Your task to perform on an android device: snooze an email in the gmail app Image 0: 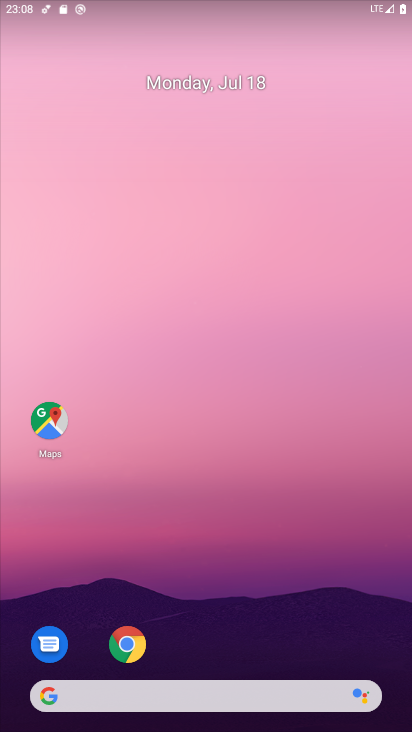
Step 0: drag from (330, 621) to (321, 169)
Your task to perform on an android device: snooze an email in the gmail app Image 1: 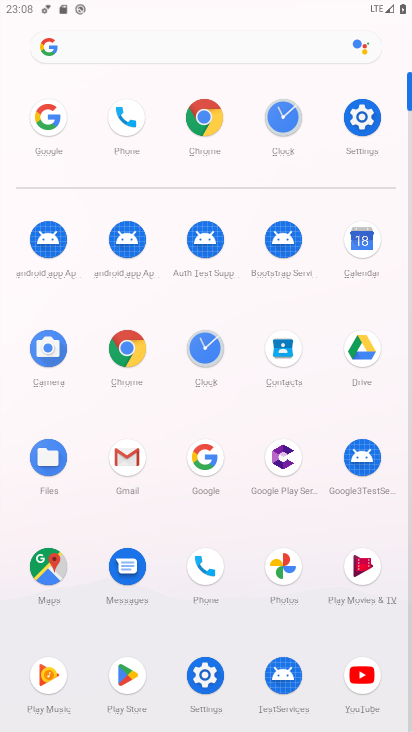
Step 1: click (124, 461)
Your task to perform on an android device: snooze an email in the gmail app Image 2: 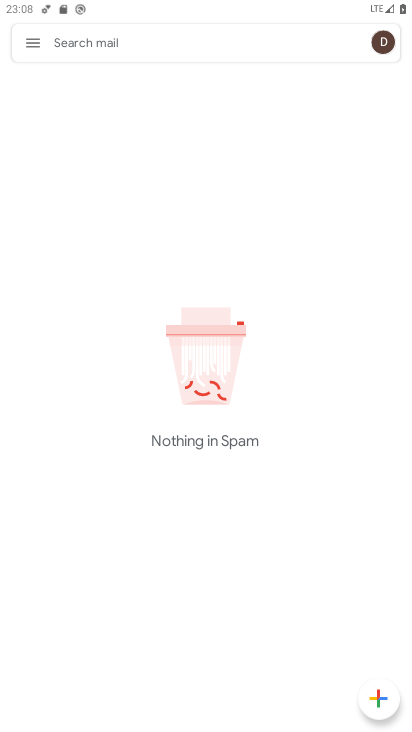
Step 2: click (41, 46)
Your task to perform on an android device: snooze an email in the gmail app Image 3: 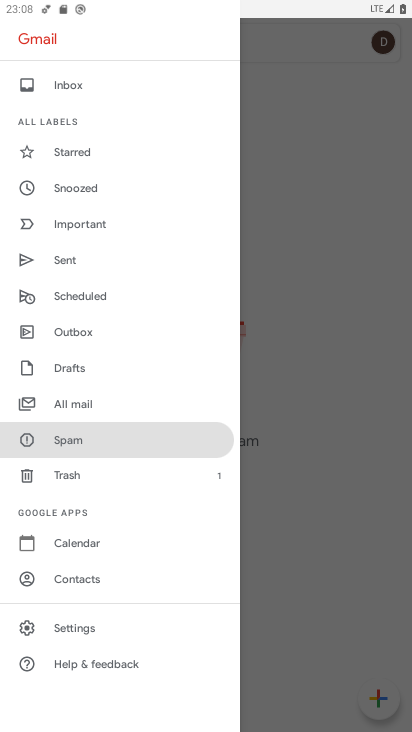
Step 3: drag from (182, 199) to (183, 321)
Your task to perform on an android device: snooze an email in the gmail app Image 4: 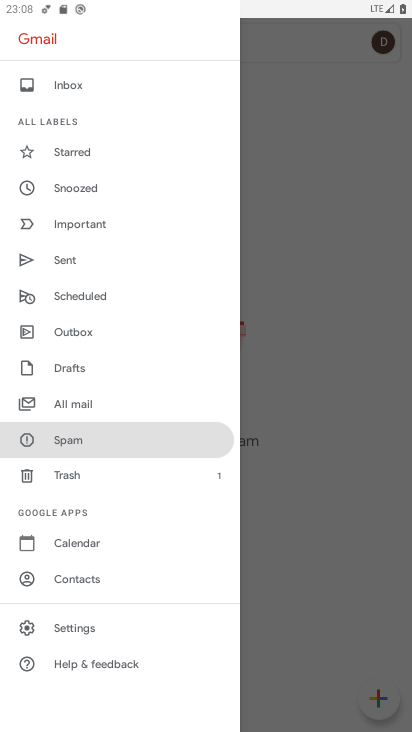
Step 4: click (114, 189)
Your task to perform on an android device: snooze an email in the gmail app Image 5: 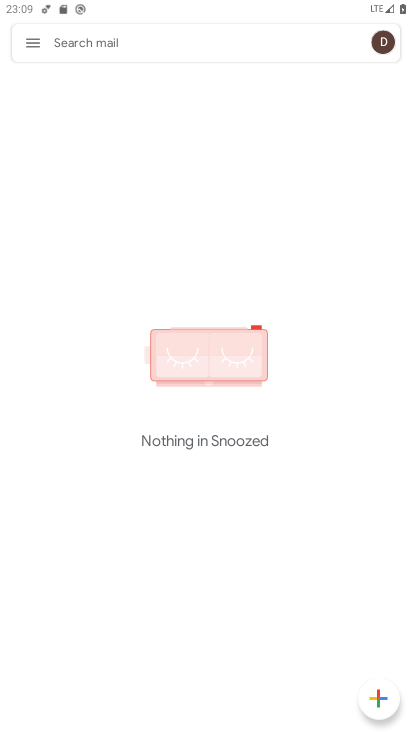
Step 5: task complete